Your task to perform on an android device: turn off translation in the chrome app Image 0: 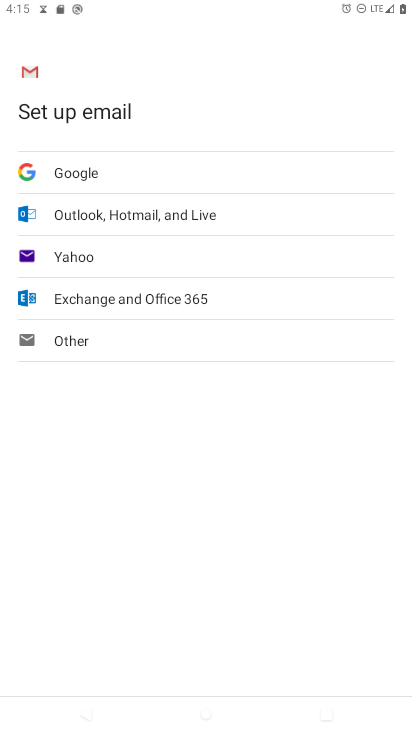
Step 0: press home button
Your task to perform on an android device: turn off translation in the chrome app Image 1: 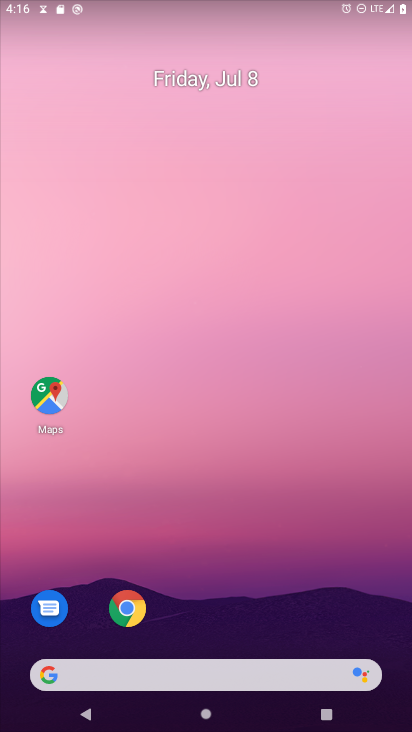
Step 1: drag from (178, 668) to (263, 26)
Your task to perform on an android device: turn off translation in the chrome app Image 2: 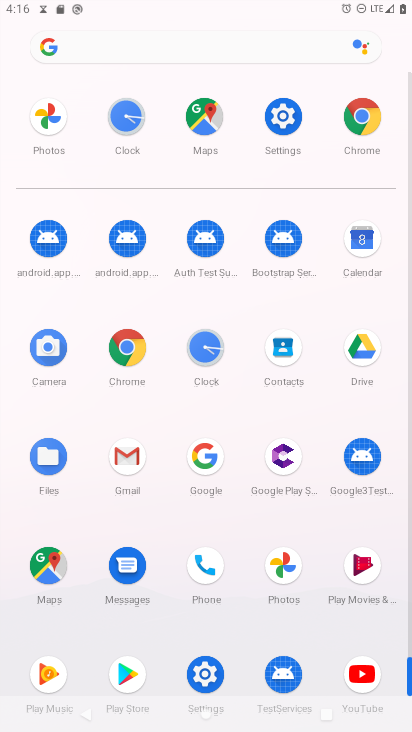
Step 2: click (133, 344)
Your task to perform on an android device: turn off translation in the chrome app Image 3: 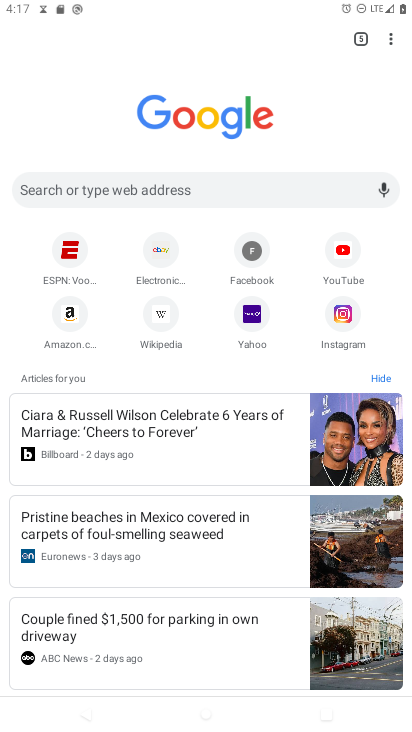
Step 3: drag from (396, 36) to (275, 327)
Your task to perform on an android device: turn off translation in the chrome app Image 4: 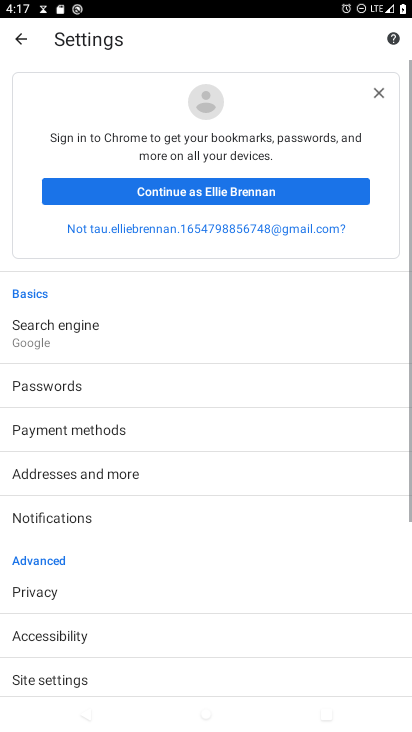
Step 4: drag from (196, 670) to (196, 329)
Your task to perform on an android device: turn off translation in the chrome app Image 5: 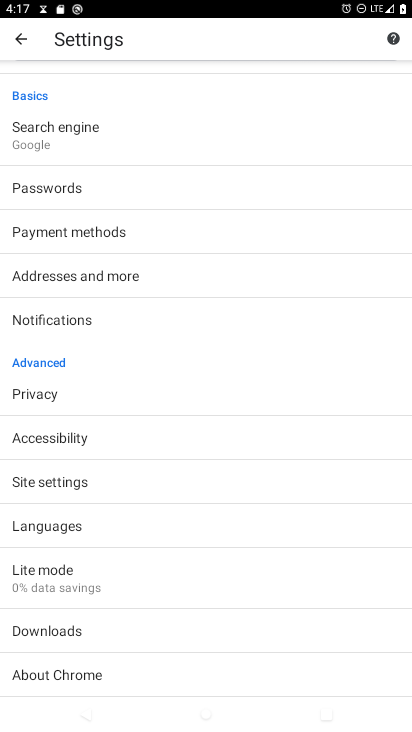
Step 5: click (80, 534)
Your task to perform on an android device: turn off translation in the chrome app Image 6: 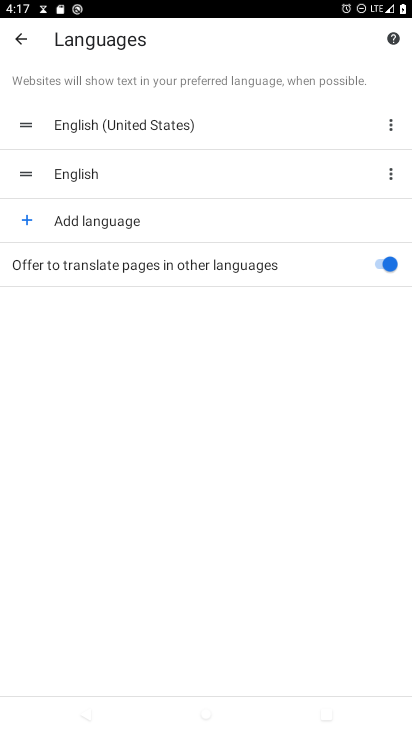
Step 6: click (387, 264)
Your task to perform on an android device: turn off translation in the chrome app Image 7: 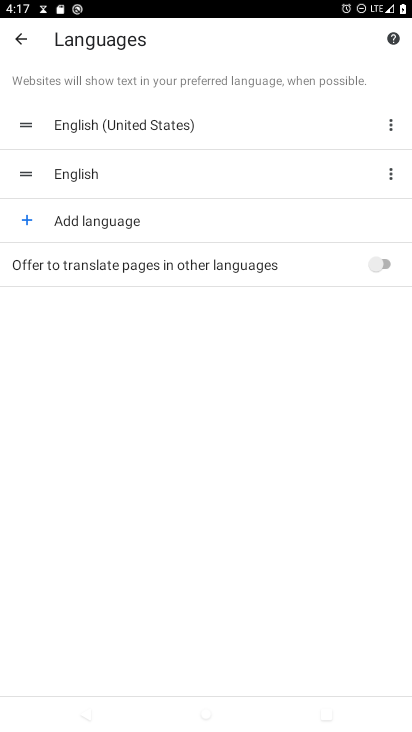
Step 7: task complete